Your task to perform on an android device: Is it going to rain tomorrow? Image 0: 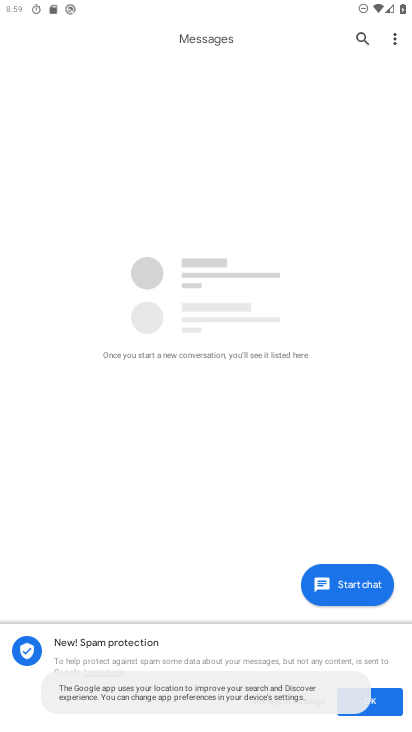
Step 0: drag from (290, 612) to (294, 313)
Your task to perform on an android device: Is it going to rain tomorrow? Image 1: 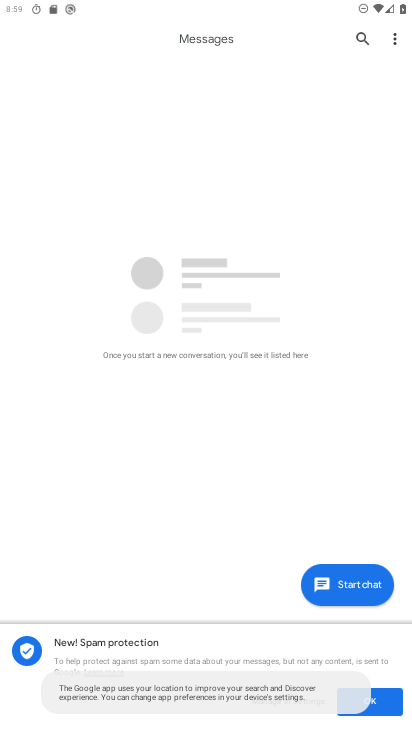
Step 1: press home button
Your task to perform on an android device: Is it going to rain tomorrow? Image 2: 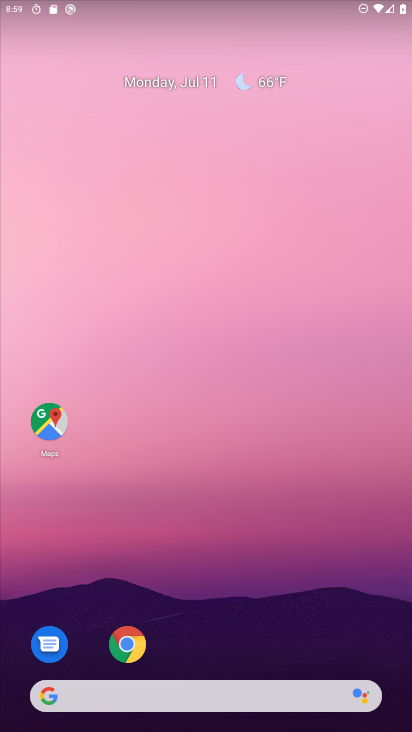
Step 2: click (279, 76)
Your task to perform on an android device: Is it going to rain tomorrow? Image 3: 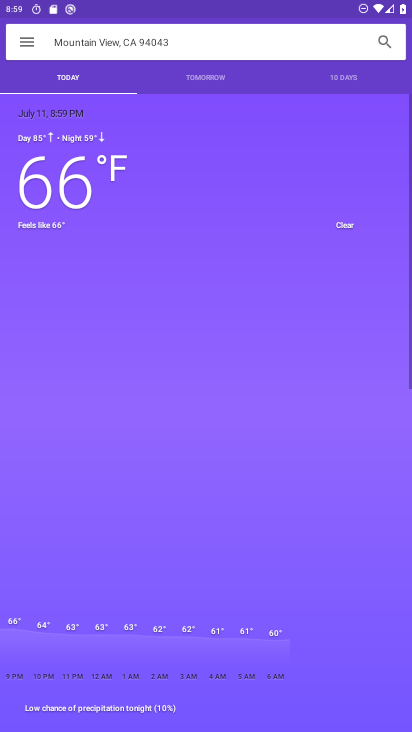
Step 3: click (221, 80)
Your task to perform on an android device: Is it going to rain tomorrow? Image 4: 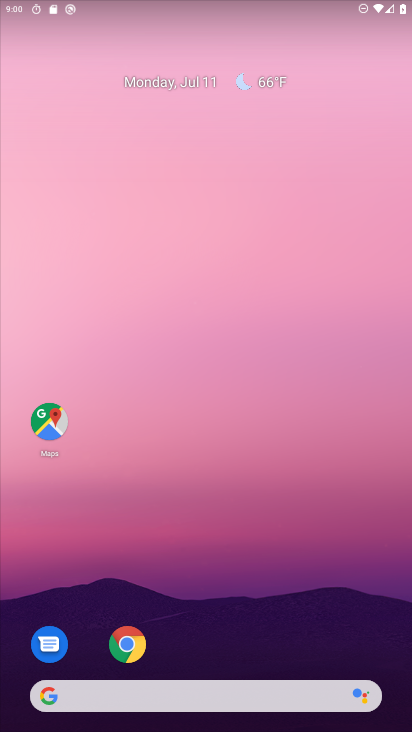
Step 4: click (267, 78)
Your task to perform on an android device: Is it going to rain tomorrow? Image 5: 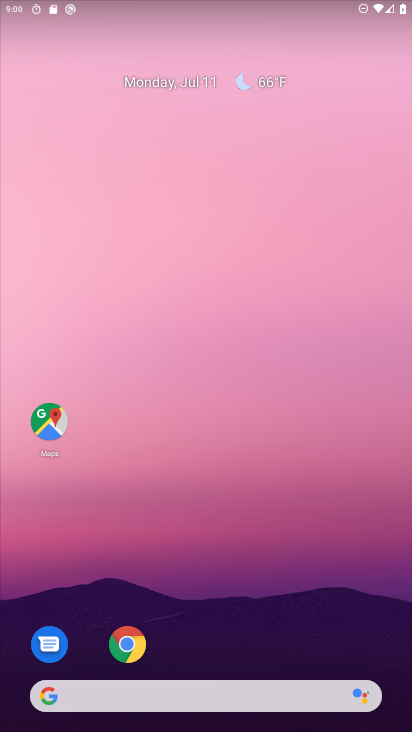
Step 5: click (266, 83)
Your task to perform on an android device: Is it going to rain tomorrow? Image 6: 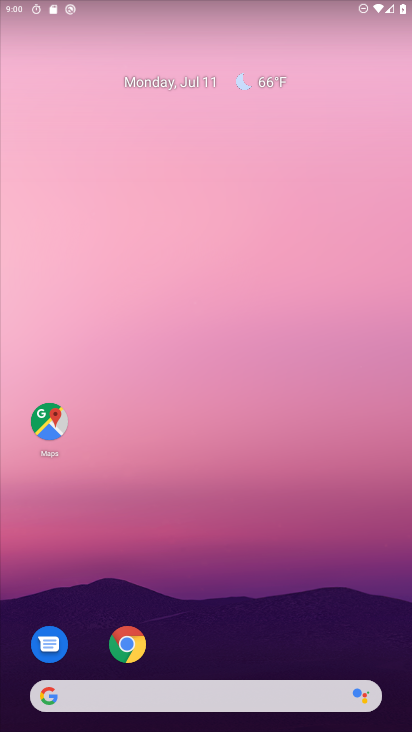
Step 6: click (280, 80)
Your task to perform on an android device: Is it going to rain tomorrow? Image 7: 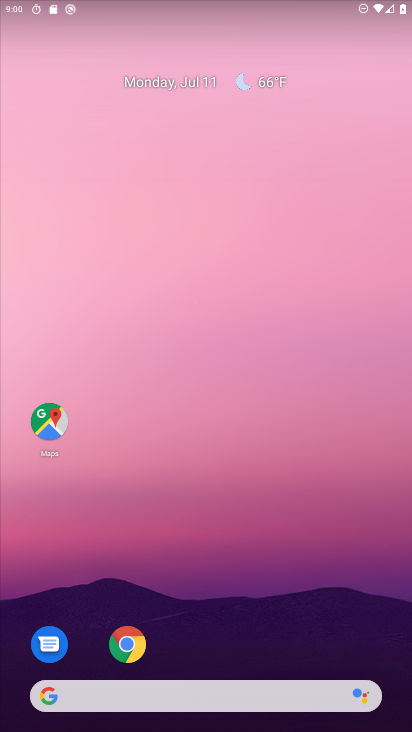
Step 7: drag from (261, 569) to (336, 65)
Your task to perform on an android device: Is it going to rain tomorrow? Image 8: 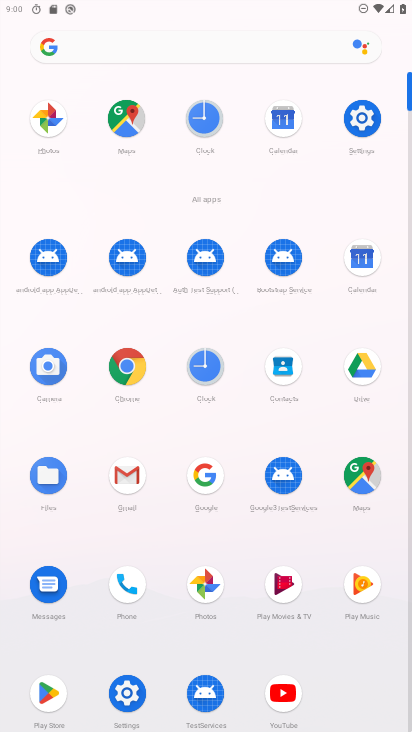
Step 8: click (128, 364)
Your task to perform on an android device: Is it going to rain tomorrow? Image 9: 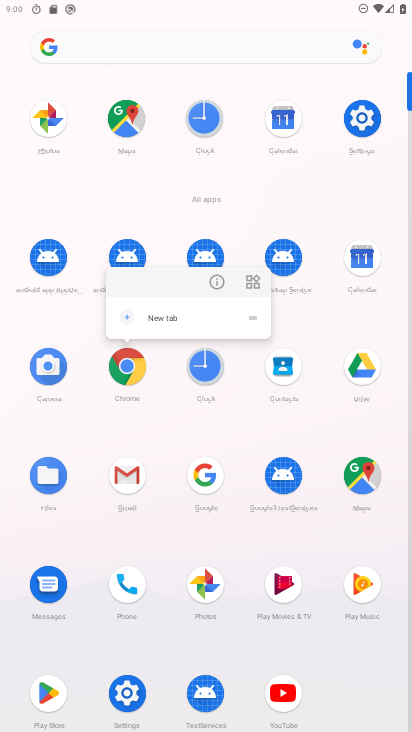
Step 9: click (128, 363)
Your task to perform on an android device: Is it going to rain tomorrow? Image 10: 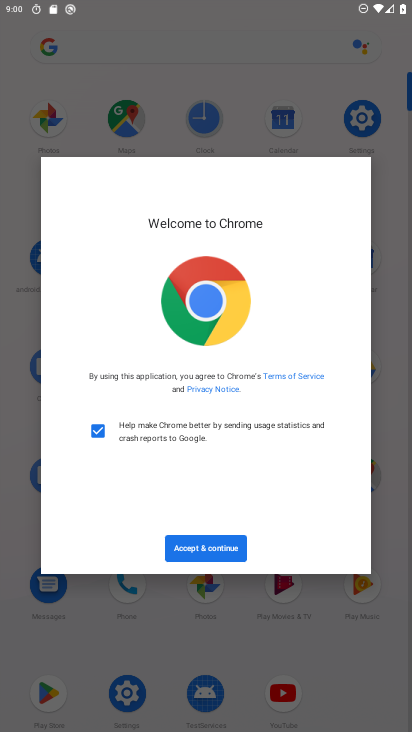
Step 10: click (215, 554)
Your task to perform on an android device: Is it going to rain tomorrow? Image 11: 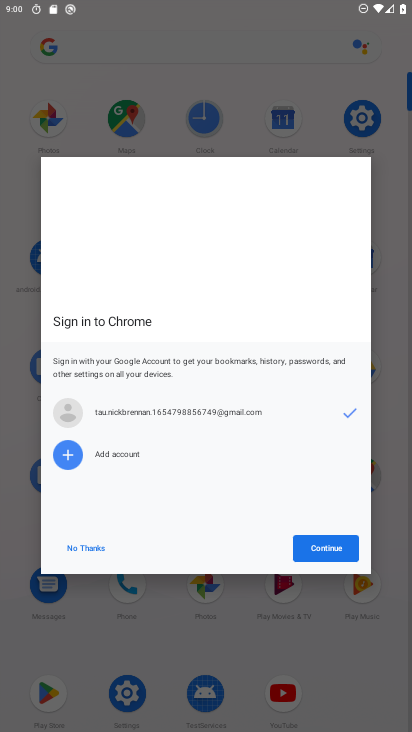
Step 11: click (357, 546)
Your task to perform on an android device: Is it going to rain tomorrow? Image 12: 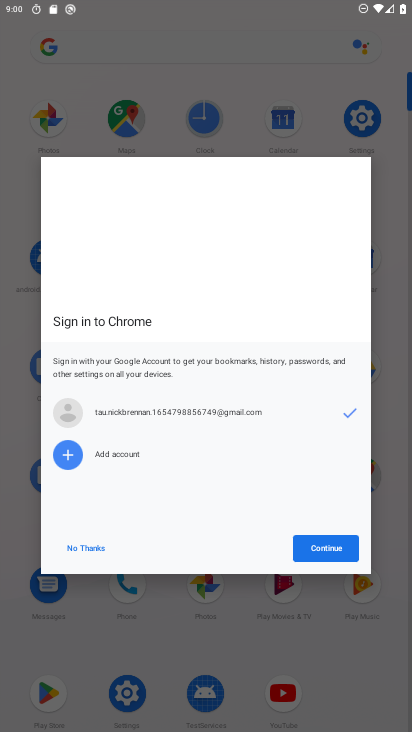
Step 12: click (325, 552)
Your task to perform on an android device: Is it going to rain tomorrow? Image 13: 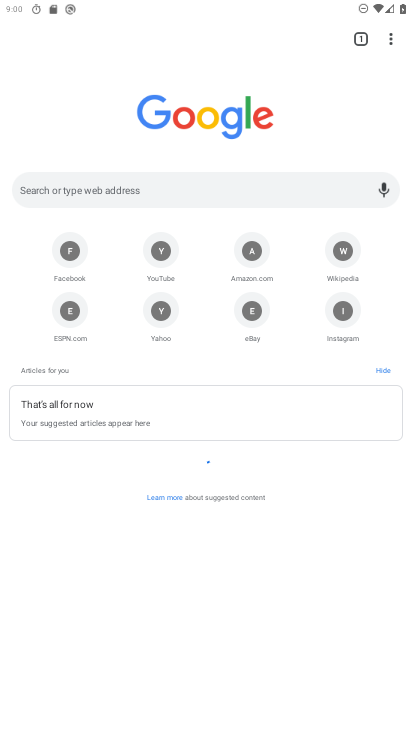
Step 13: click (217, 188)
Your task to perform on an android device: Is it going to rain tomorrow? Image 14: 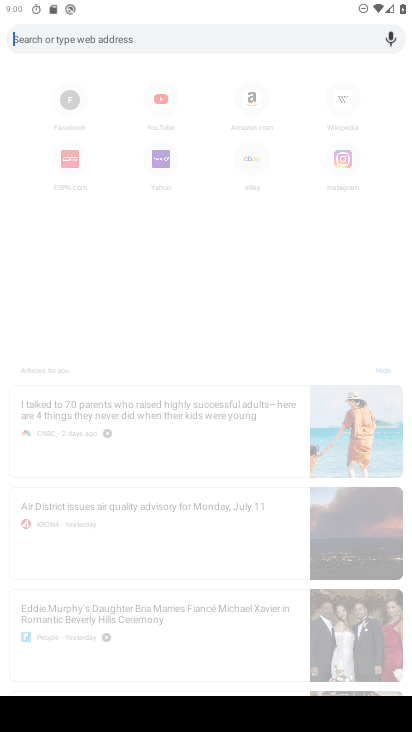
Step 14: type "weather"
Your task to perform on an android device: Is it going to rain tomorrow? Image 15: 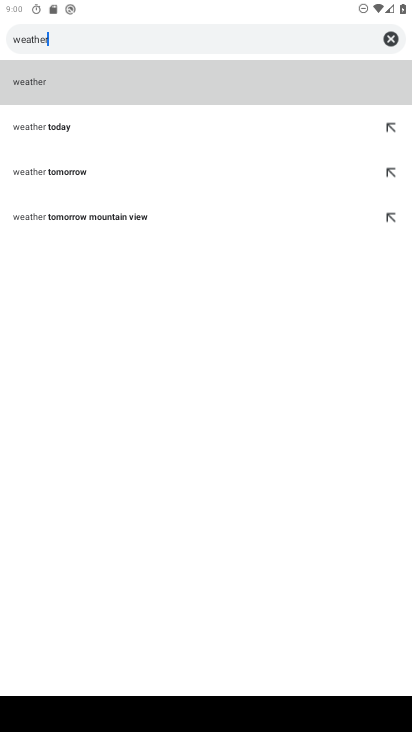
Step 15: click (38, 83)
Your task to perform on an android device: Is it going to rain tomorrow? Image 16: 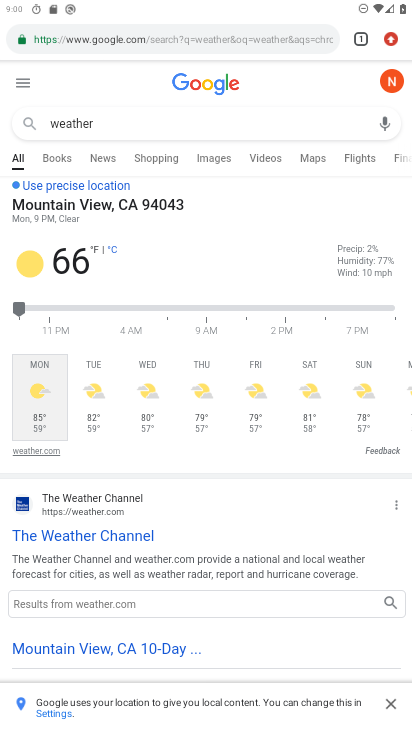
Step 16: click (96, 393)
Your task to perform on an android device: Is it going to rain tomorrow? Image 17: 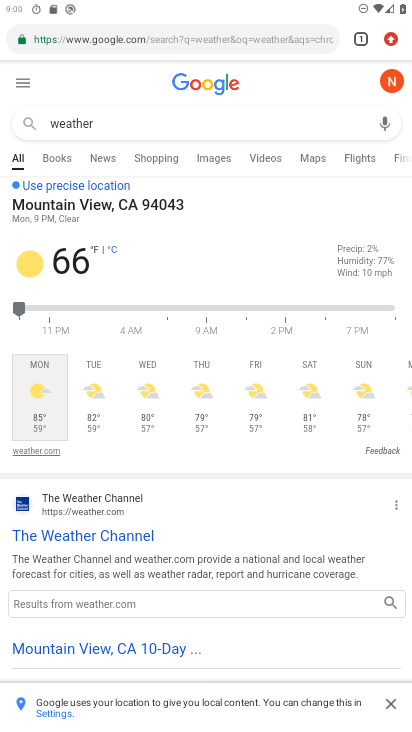
Step 17: click (95, 383)
Your task to perform on an android device: Is it going to rain tomorrow? Image 18: 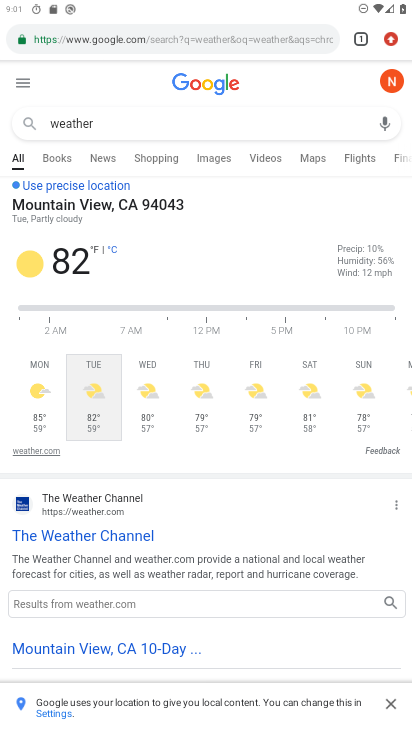
Step 18: click (97, 409)
Your task to perform on an android device: Is it going to rain tomorrow? Image 19: 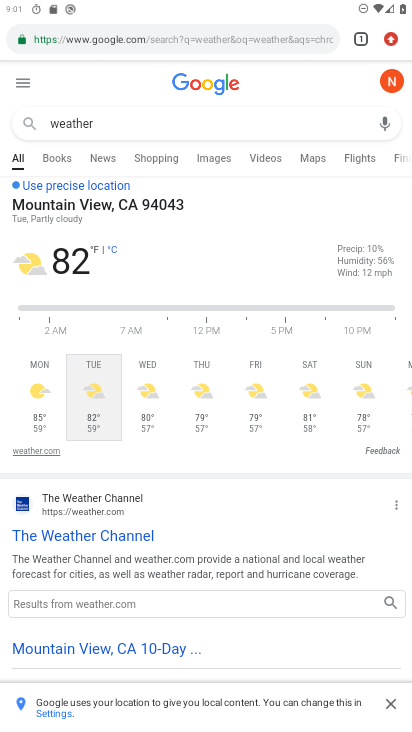
Step 19: task complete